Your task to perform on an android device: Show me the alarms in the clock app Image 0: 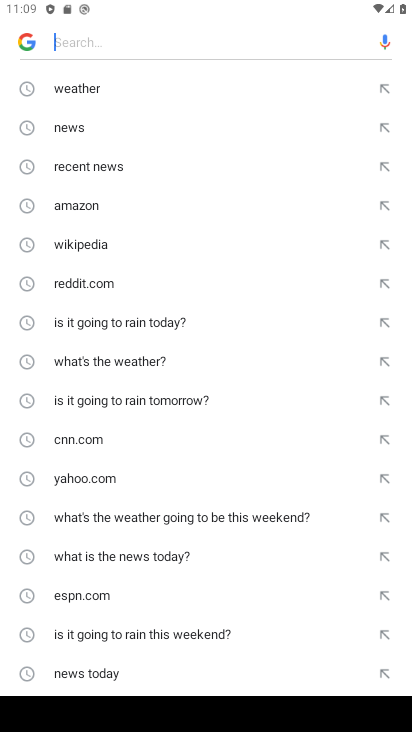
Step 0: press home button
Your task to perform on an android device: Show me the alarms in the clock app Image 1: 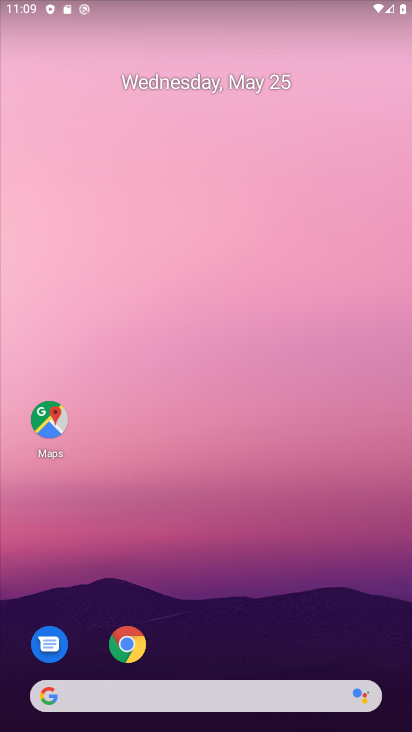
Step 1: drag from (281, 602) to (188, 134)
Your task to perform on an android device: Show me the alarms in the clock app Image 2: 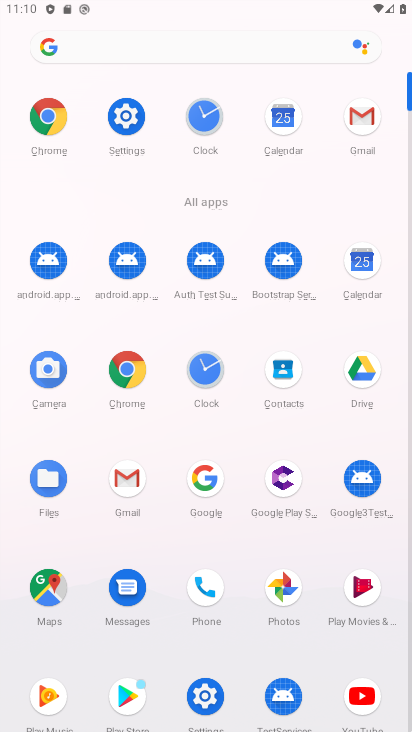
Step 2: click (204, 117)
Your task to perform on an android device: Show me the alarms in the clock app Image 3: 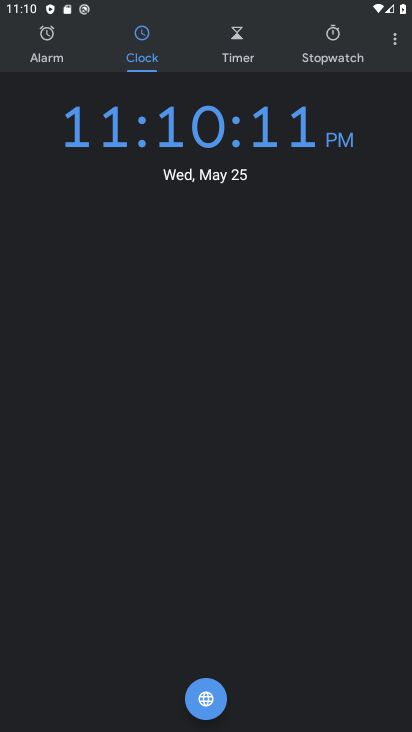
Step 3: click (47, 36)
Your task to perform on an android device: Show me the alarms in the clock app Image 4: 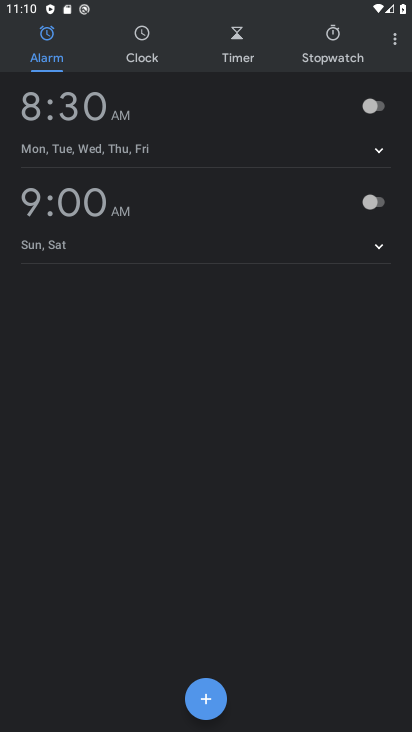
Step 4: click (206, 700)
Your task to perform on an android device: Show me the alarms in the clock app Image 5: 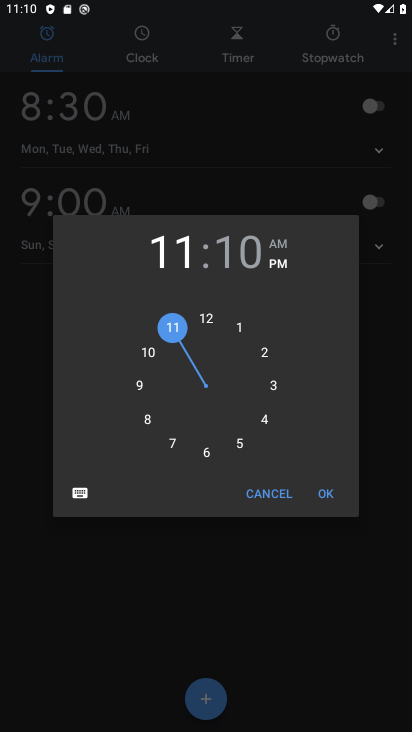
Step 5: click (142, 385)
Your task to perform on an android device: Show me the alarms in the clock app Image 6: 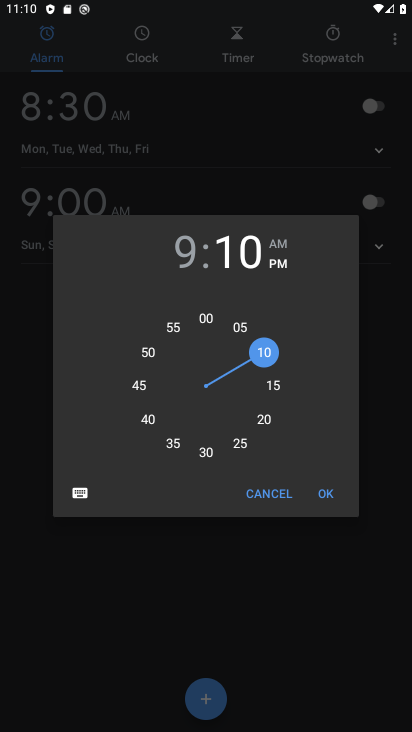
Step 6: click (142, 385)
Your task to perform on an android device: Show me the alarms in the clock app Image 7: 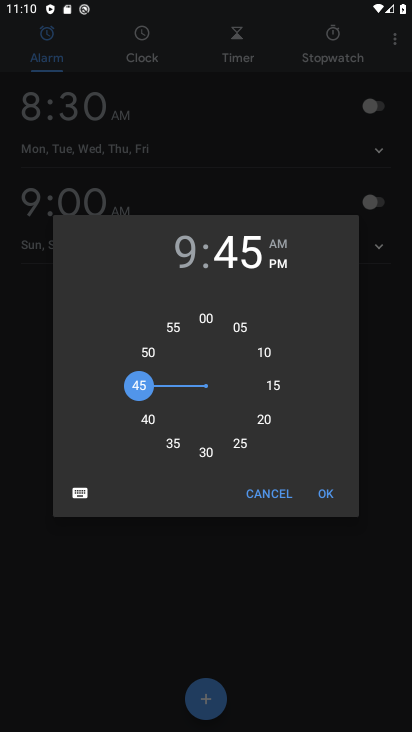
Step 7: click (328, 493)
Your task to perform on an android device: Show me the alarms in the clock app Image 8: 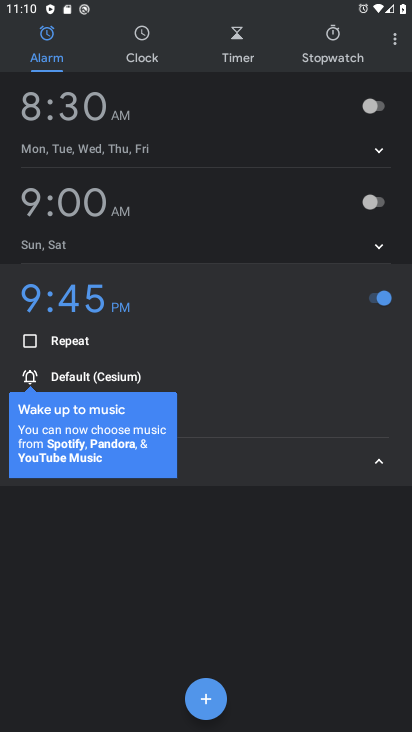
Step 8: click (378, 457)
Your task to perform on an android device: Show me the alarms in the clock app Image 9: 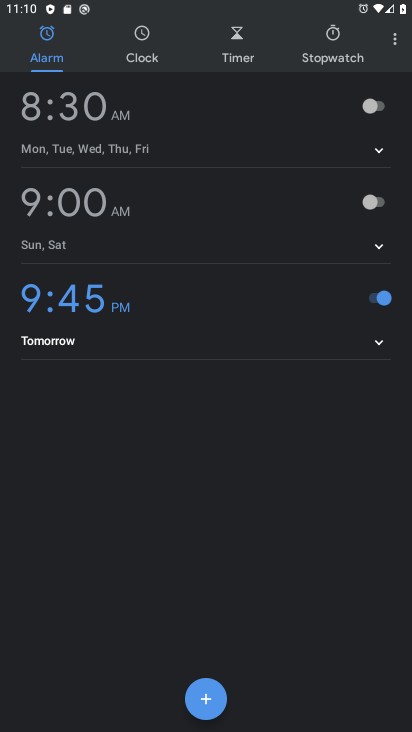
Step 9: task complete